Your task to perform on an android device: Open privacy settings Image 0: 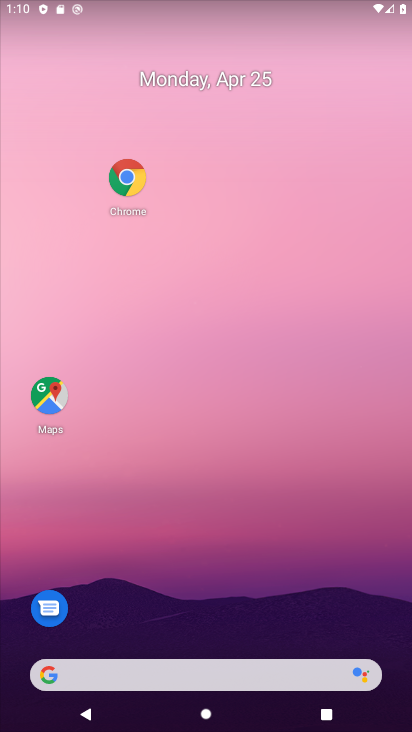
Step 0: drag from (258, 604) to (247, 98)
Your task to perform on an android device: Open privacy settings Image 1: 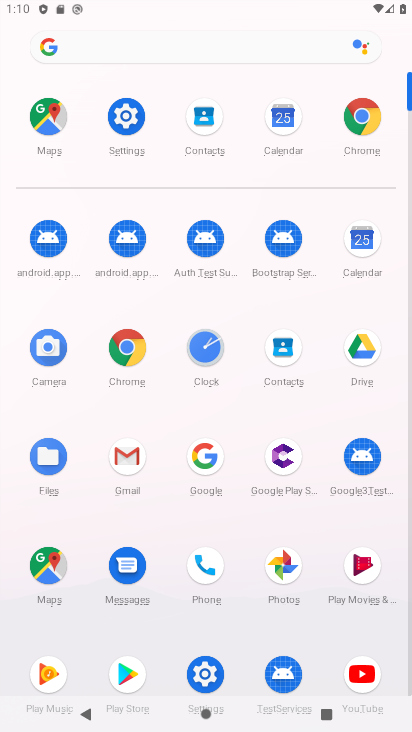
Step 1: click (122, 111)
Your task to perform on an android device: Open privacy settings Image 2: 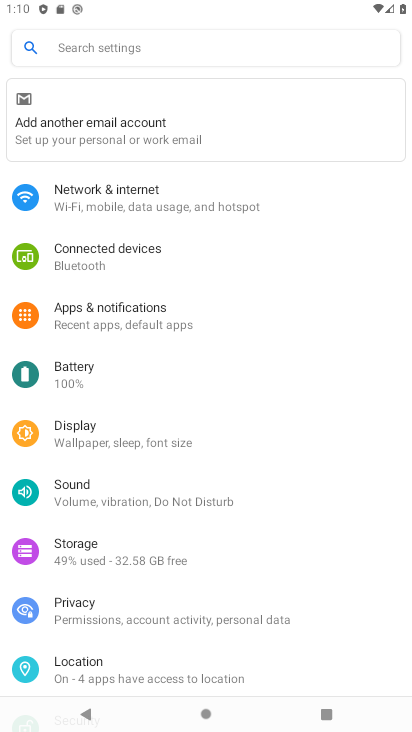
Step 2: drag from (210, 613) to (235, 269)
Your task to perform on an android device: Open privacy settings Image 3: 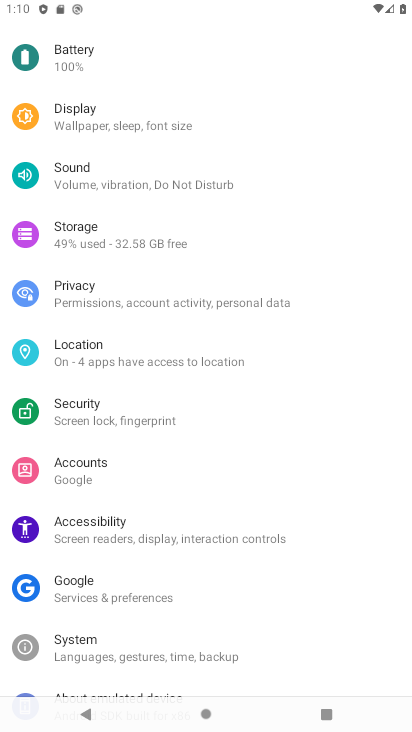
Step 3: click (127, 297)
Your task to perform on an android device: Open privacy settings Image 4: 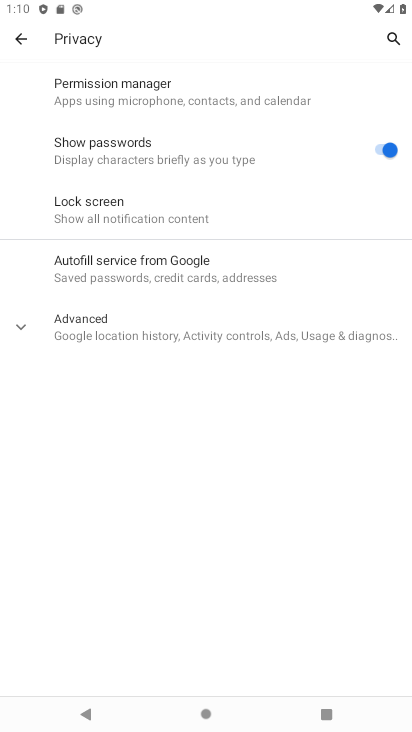
Step 4: task complete